Your task to perform on an android device: toggle javascript in the chrome app Image 0: 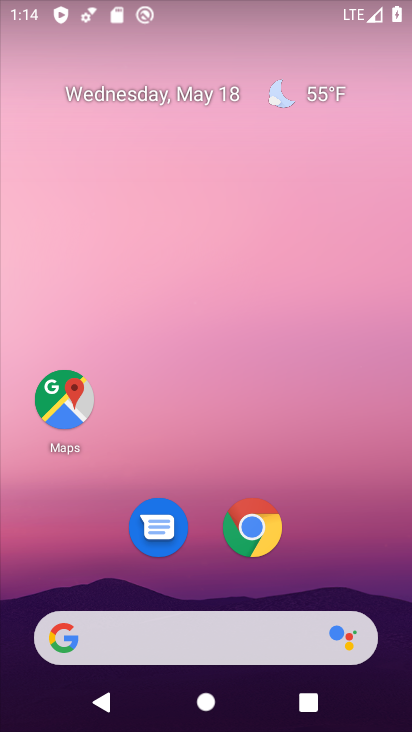
Step 0: click (242, 543)
Your task to perform on an android device: toggle javascript in the chrome app Image 1: 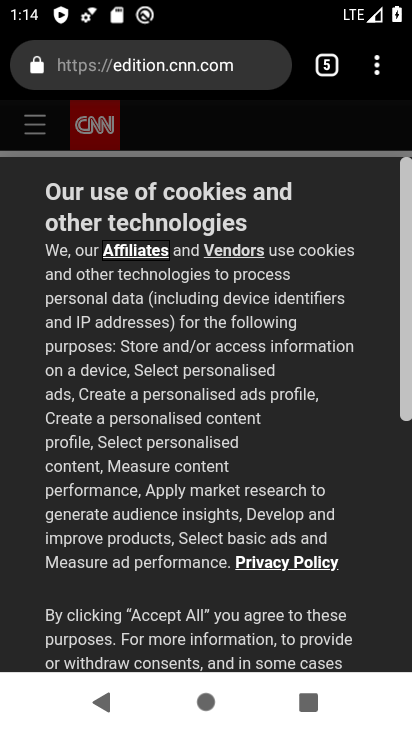
Step 1: click (375, 73)
Your task to perform on an android device: toggle javascript in the chrome app Image 2: 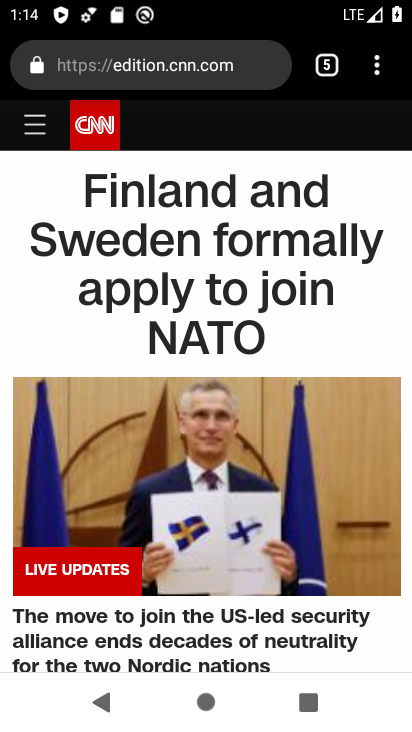
Step 2: click (382, 62)
Your task to perform on an android device: toggle javascript in the chrome app Image 3: 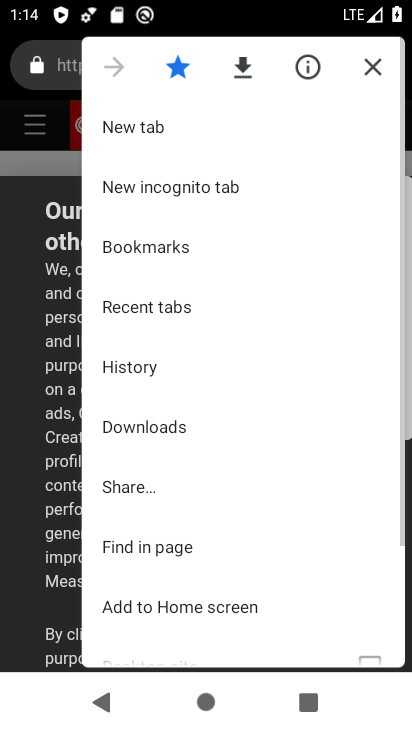
Step 3: drag from (240, 573) to (213, 84)
Your task to perform on an android device: toggle javascript in the chrome app Image 4: 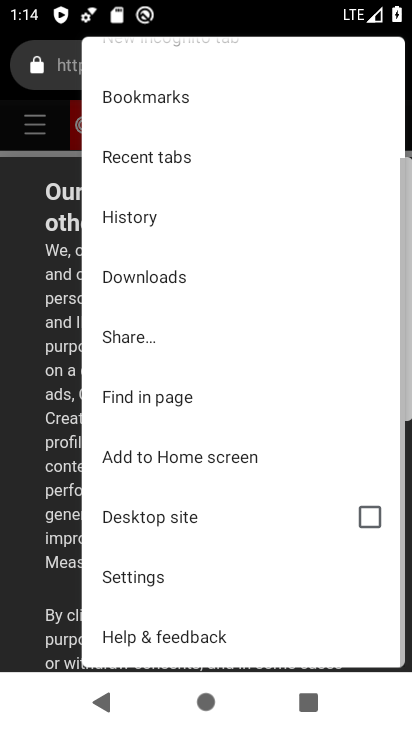
Step 4: click (210, 575)
Your task to perform on an android device: toggle javascript in the chrome app Image 5: 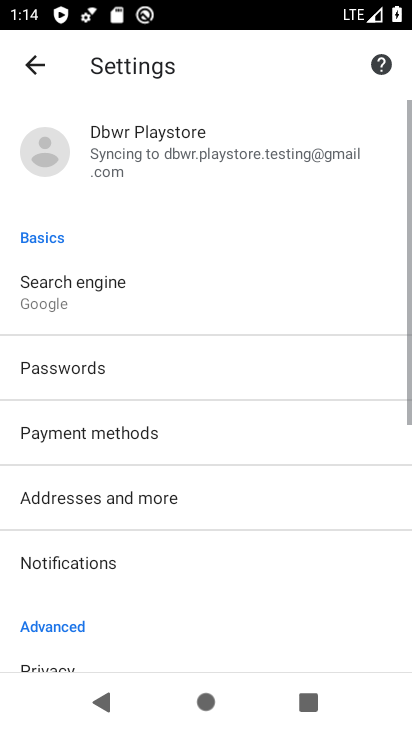
Step 5: drag from (261, 581) to (198, 189)
Your task to perform on an android device: toggle javascript in the chrome app Image 6: 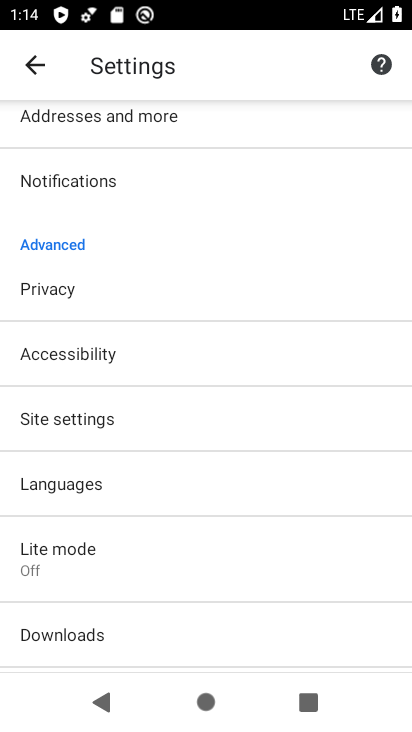
Step 6: drag from (190, 595) to (203, 236)
Your task to perform on an android device: toggle javascript in the chrome app Image 7: 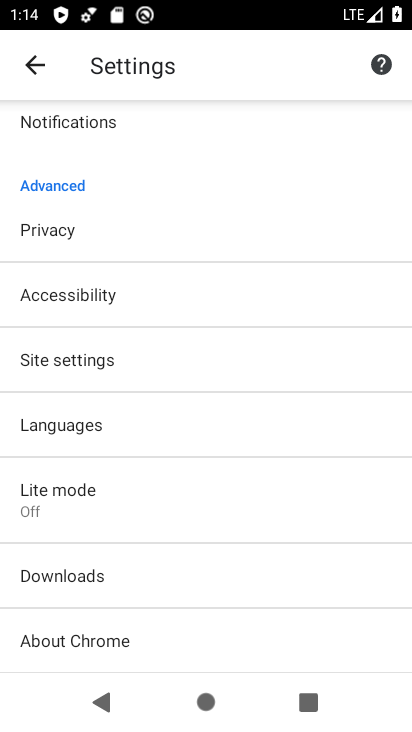
Step 7: click (147, 367)
Your task to perform on an android device: toggle javascript in the chrome app Image 8: 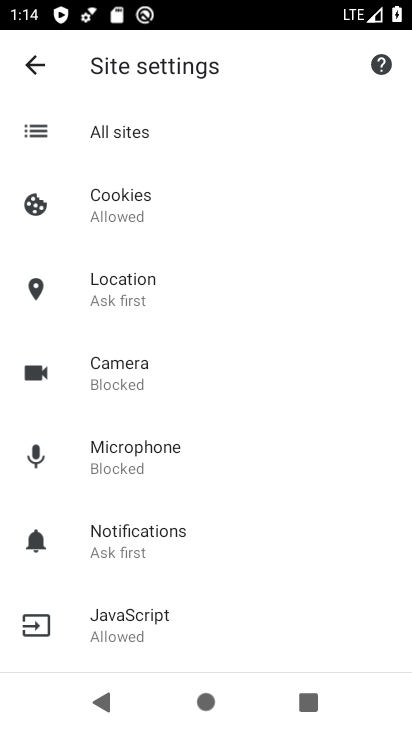
Step 8: click (189, 628)
Your task to perform on an android device: toggle javascript in the chrome app Image 9: 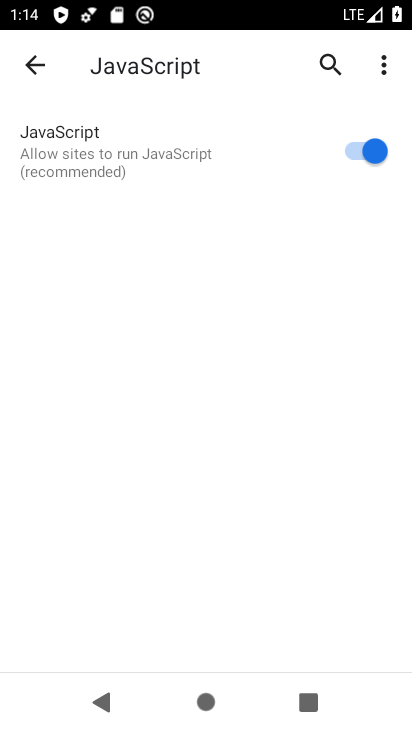
Step 9: click (338, 149)
Your task to perform on an android device: toggle javascript in the chrome app Image 10: 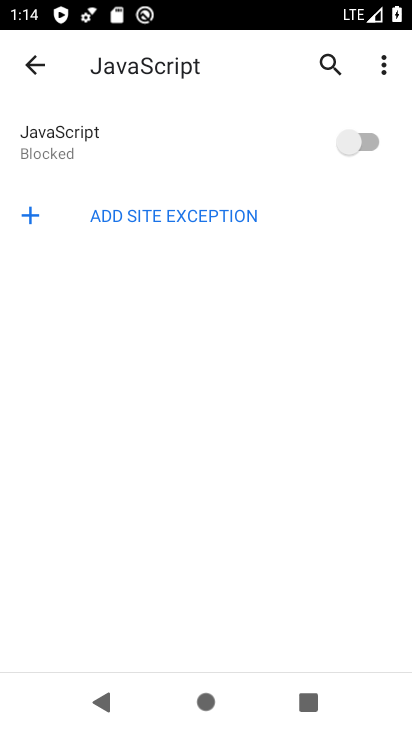
Step 10: task complete